Your task to perform on an android device: Open ESPN.com Image 0: 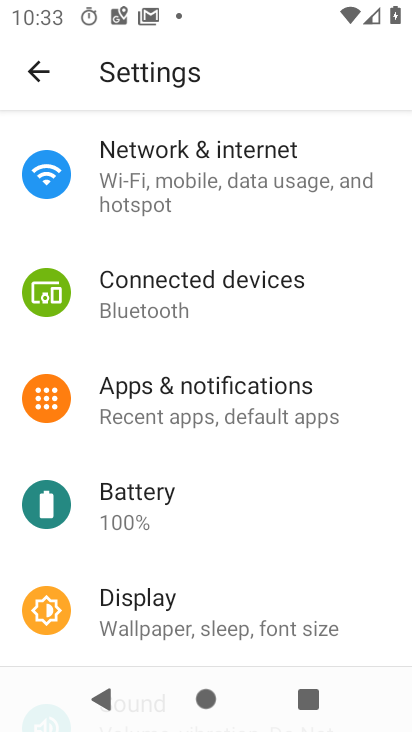
Step 0: press home button
Your task to perform on an android device: Open ESPN.com Image 1: 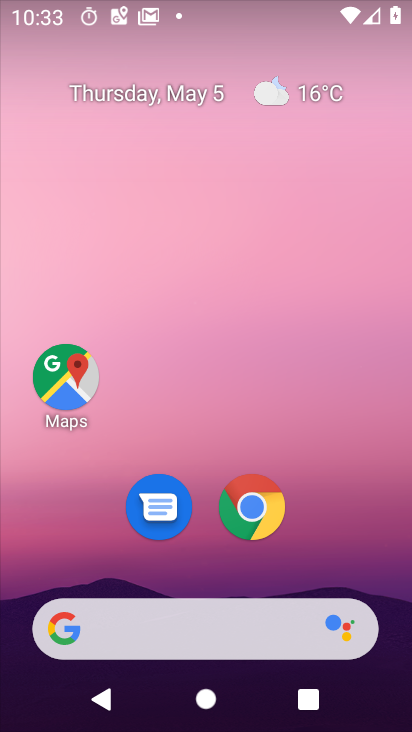
Step 1: click (237, 510)
Your task to perform on an android device: Open ESPN.com Image 2: 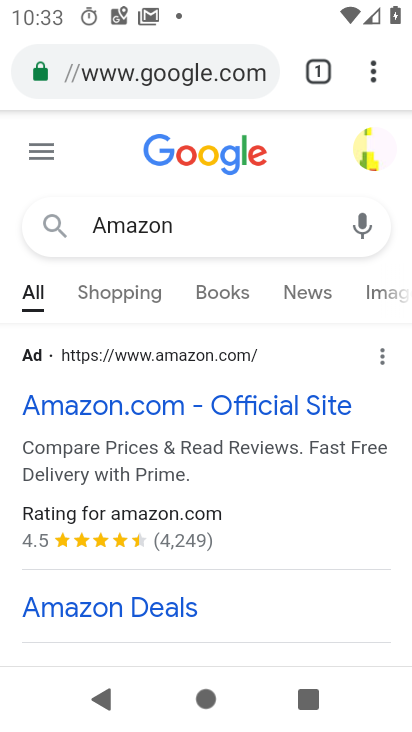
Step 2: click (157, 80)
Your task to perform on an android device: Open ESPN.com Image 3: 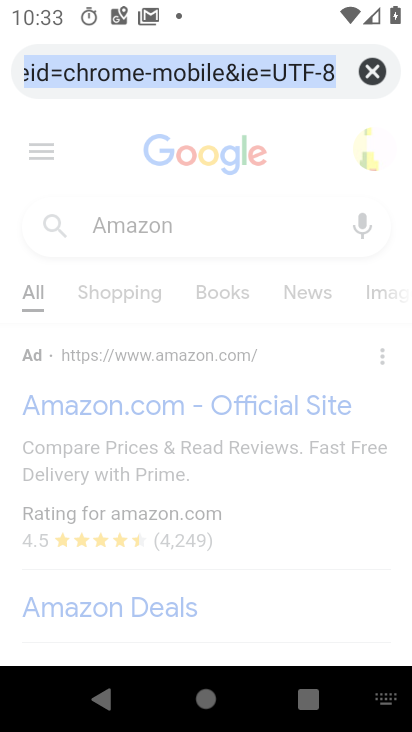
Step 3: type "ESPN.com"
Your task to perform on an android device: Open ESPN.com Image 4: 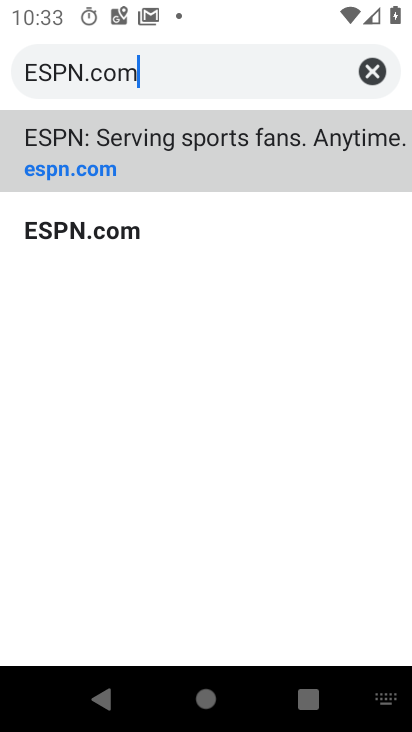
Step 4: click (94, 230)
Your task to perform on an android device: Open ESPN.com Image 5: 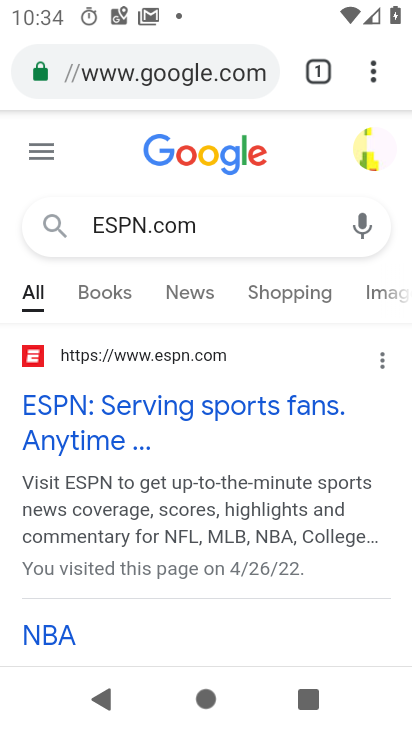
Step 5: task complete